Your task to perform on an android device: clear history in the chrome app Image 0: 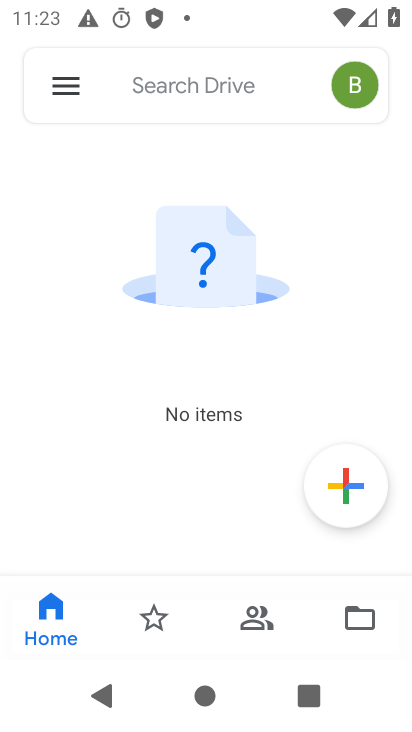
Step 0: press home button
Your task to perform on an android device: clear history in the chrome app Image 1: 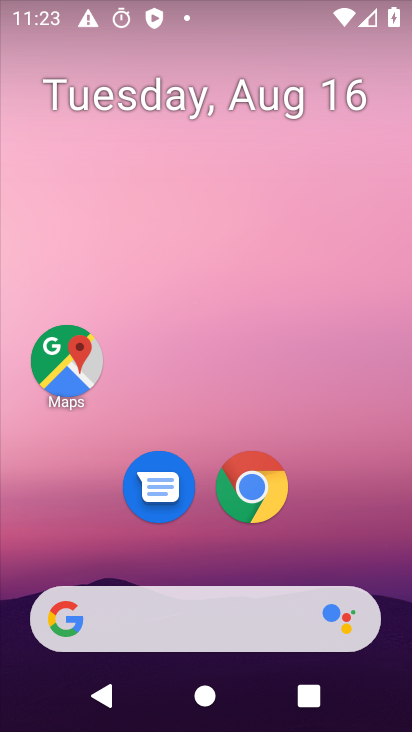
Step 1: click (229, 494)
Your task to perform on an android device: clear history in the chrome app Image 2: 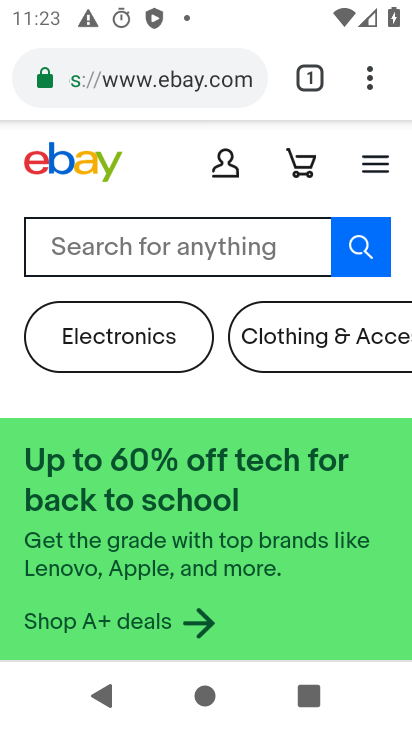
Step 2: click (379, 92)
Your task to perform on an android device: clear history in the chrome app Image 3: 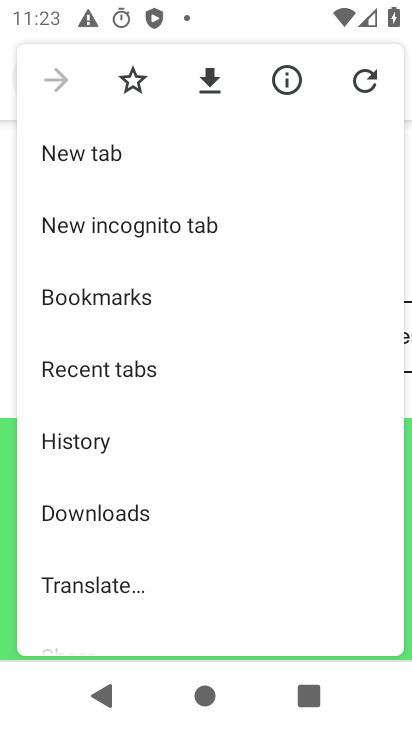
Step 3: click (106, 436)
Your task to perform on an android device: clear history in the chrome app Image 4: 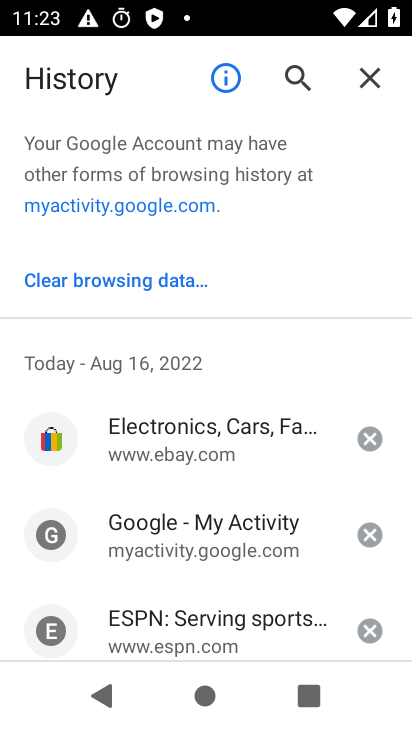
Step 4: click (117, 286)
Your task to perform on an android device: clear history in the chrome app Image 5: 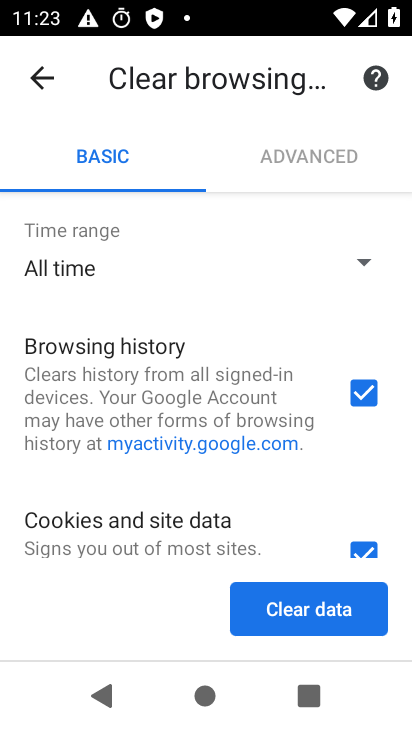
Step 5: click (338, 602)
Your task to perform on an android device: clear history in the chrome app Image 6: 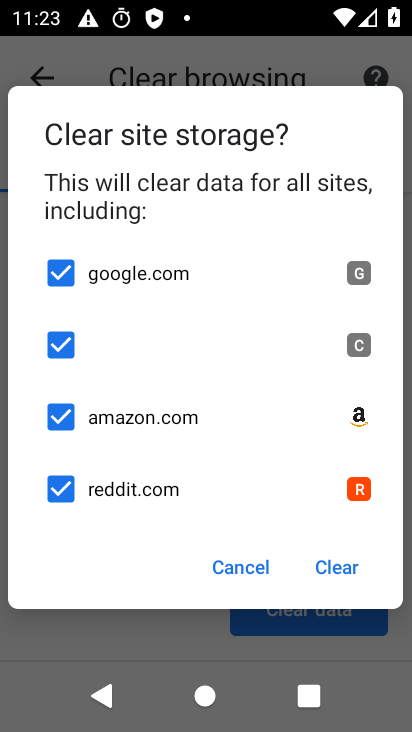
Step 6: click (340, 564)
Your task to perform on an android device: clear history in the chrome app Image 7: 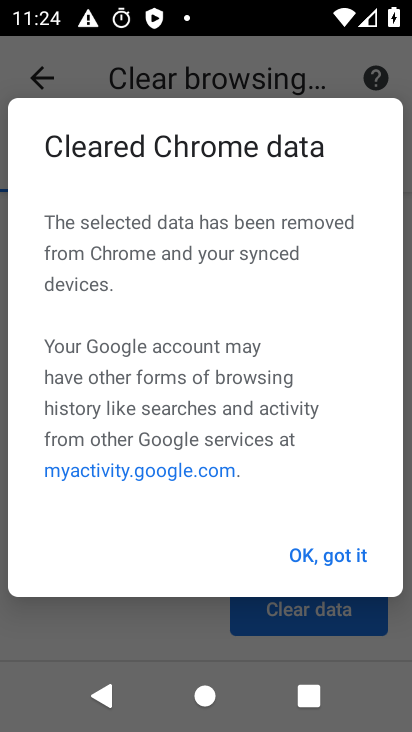
Step 7: click (351, 552)
Your task to perform on an android device: clear history in the chrome app Image 8: 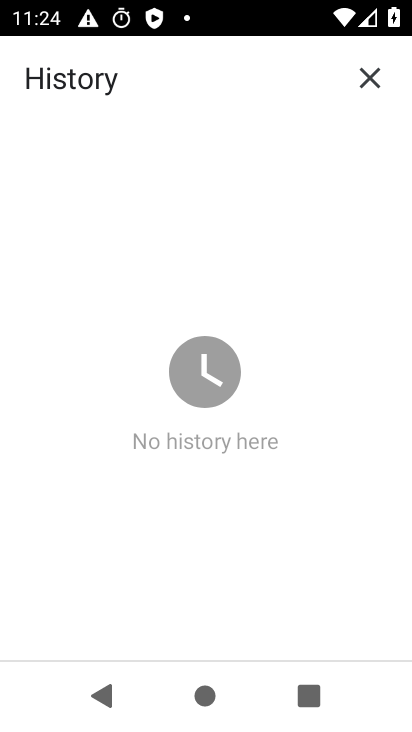
Step 8: task complete